Your task to perform on an android device: Open calendar and show me the fourth week of next month Image 0: 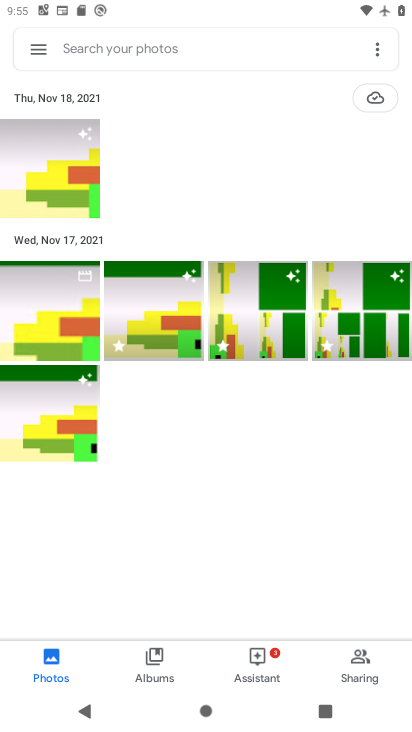
Step 0: press home button
Your task to perform on an android device: Open calendar and show me the fourth week of next month Image 1: 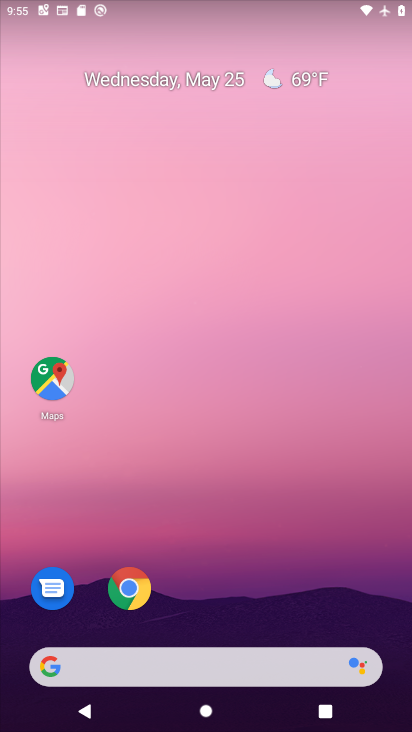
Step 1: drag from (384, 614) to (386, 174)
Your task to perform on an android device: Open calendar and show me the fourth week of next month Image 2: 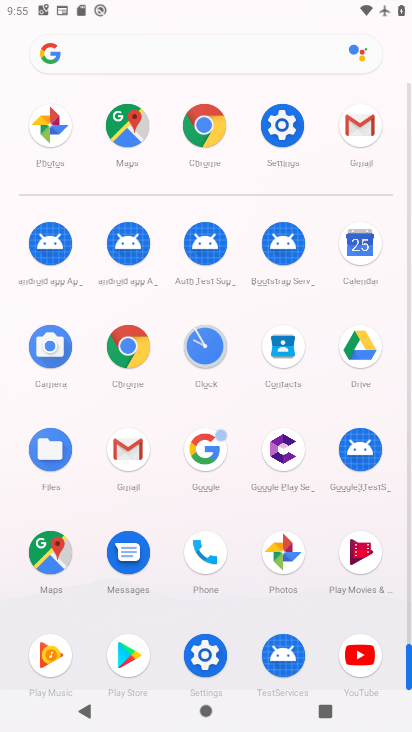
Step 2: click (357, 253)
Your task to perform on an android device: Open calendar and show me the fourth week of next month Image 3: 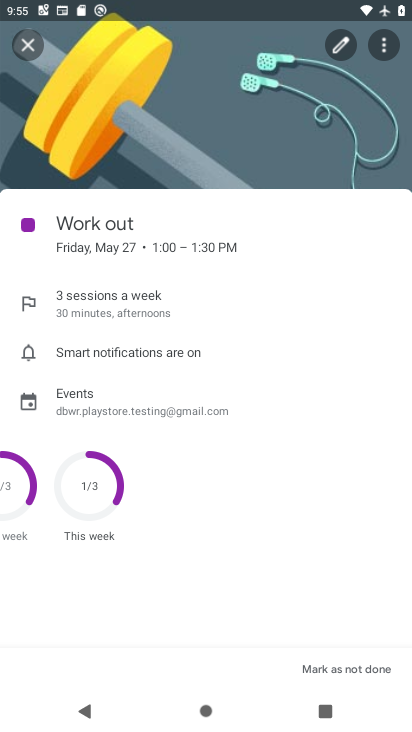
Step 3: click (31, 45)
Your task to perform on an android device: Open calendar and show me the fourth week of next month Image 4: 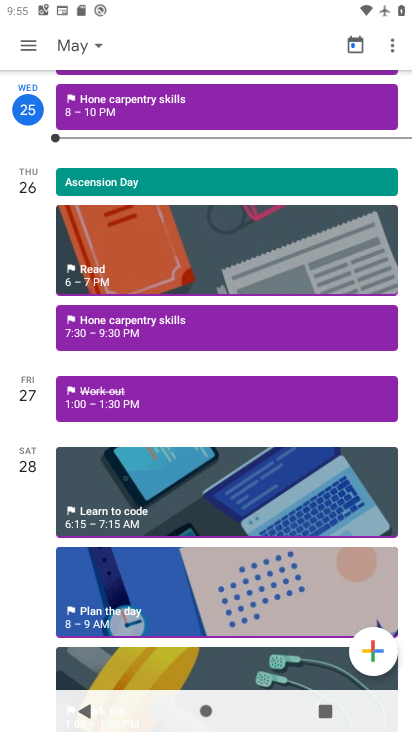
Step 4: click (98, 48)
Your task to perform on an android device: Open calendar and show me the fourth week of next month Image 5: 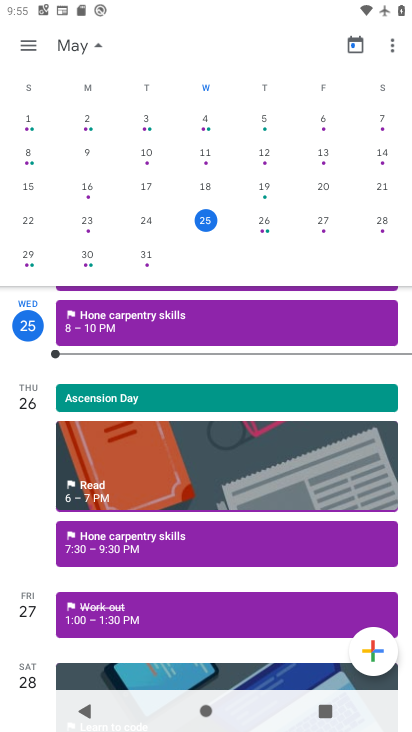
Step 5: drag from (395, 101) to (406, 269)
Your task to perform on an android device: Open calendar and show me the fourth week of next month Image 6: 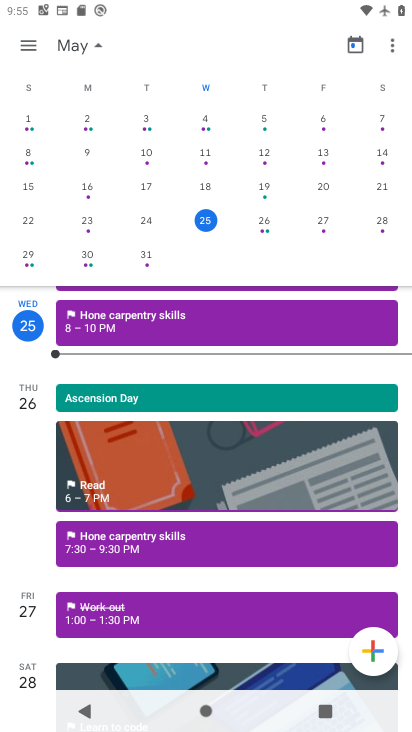
Step 6: click (98, 38)
Your task to perform on an android device: Open calendar and show me the fourth week of next month Image 7: 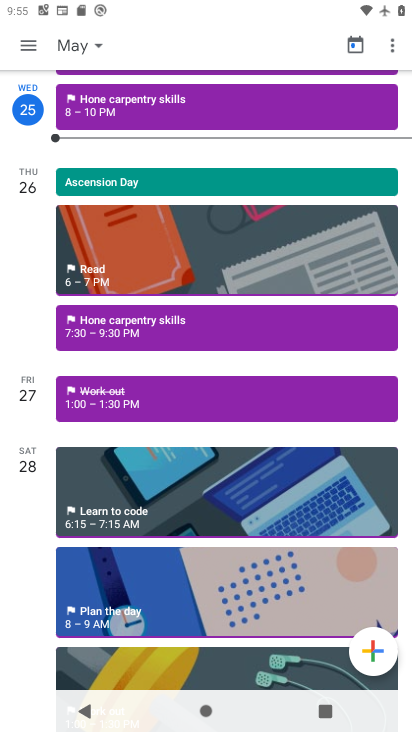
Step 7: click (99, 41)
Your task to perform on an android device: Open calendar and show me the fourth week of next month Image 8: 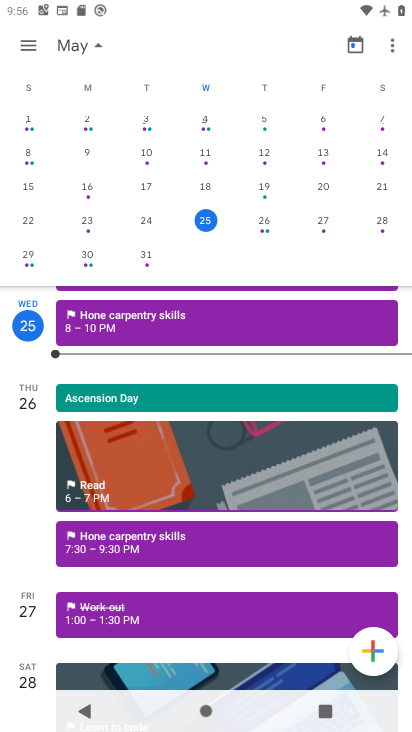
Step 8: drag from (401, 107) to (28, 101)
Your task to perform on an android device: Open calendar and show me the fourth week of next month Image 9: 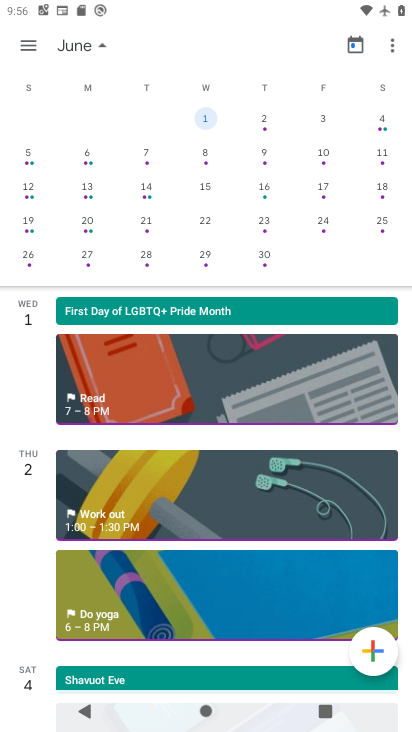
Step 9: click (94, 212)
Your task to perform on an android device: Open calendar and show me the fourth week of next month Image 10: 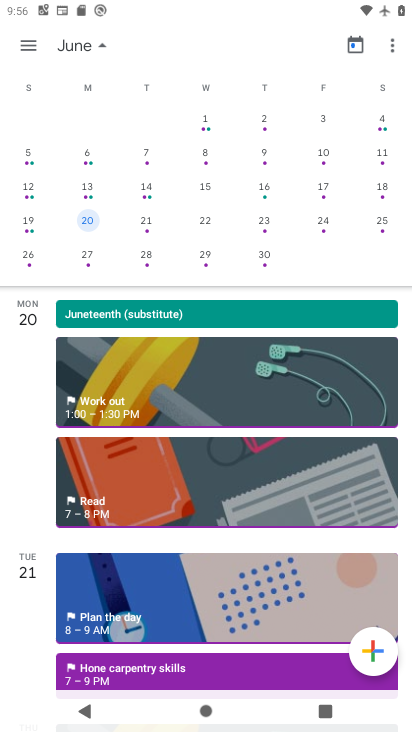
Step 10: task complete